Your task to perform on an android device: search for starred emails in the gmail app Image 0: 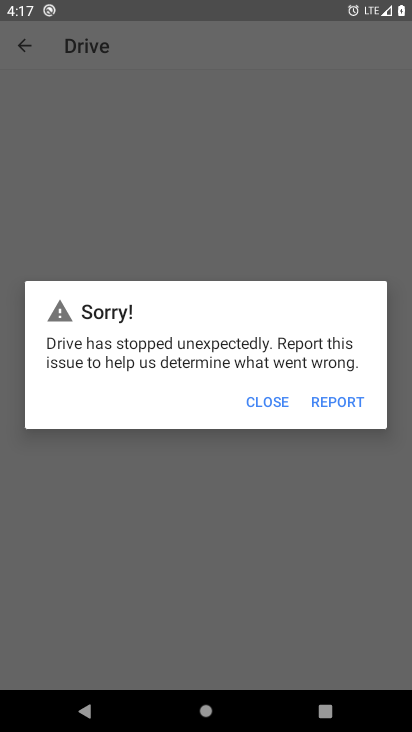
Step 0: press home button
Your task to perform on an android device: search for starred emails in the gmail app Image 1: 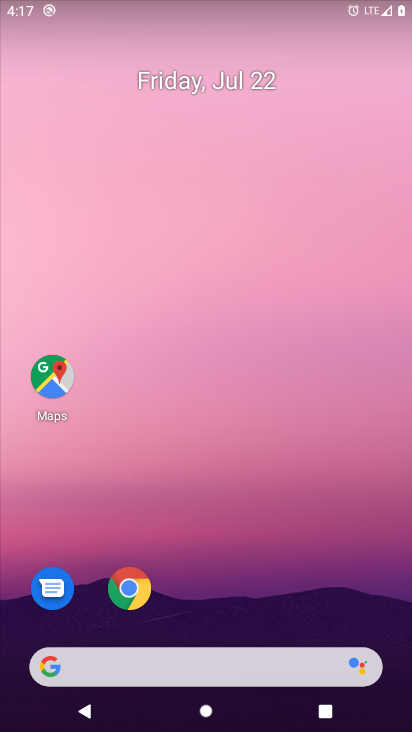
Step 1: drag from (296, 568) to (303, 86)
Your task to perform on an android device: search for starred emails in the gmail app Image 2: 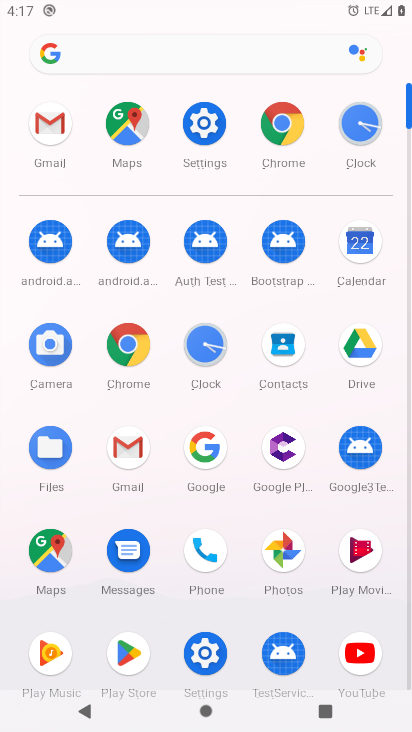
Step 2: click (128, 444)
Your task to perform on an android device: search for starred emails in the gmail app Image 3: 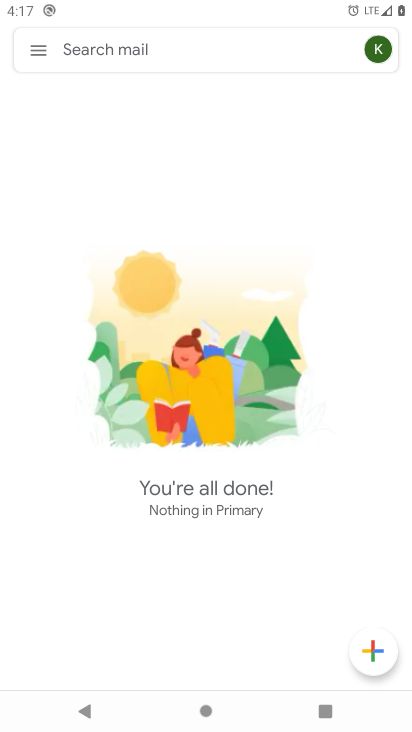
Step 3: click (32, 58)
Your task to perform on an android device: search for starred emails in the gmail app Image 4: 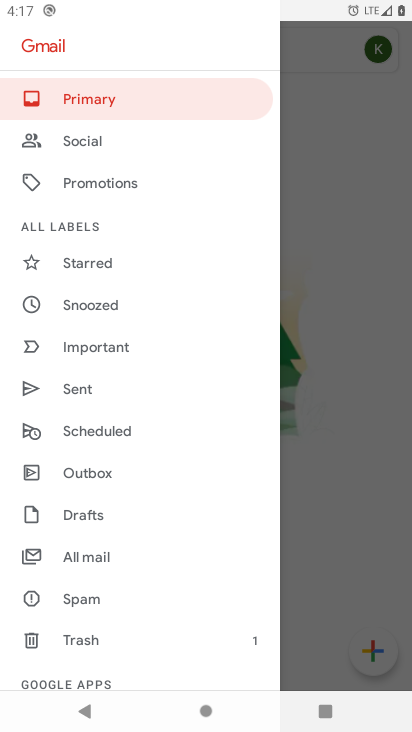
Step 4: click (69, 249)
Your task to perform on an android device: search for starred emails in the gmail app Image 5: 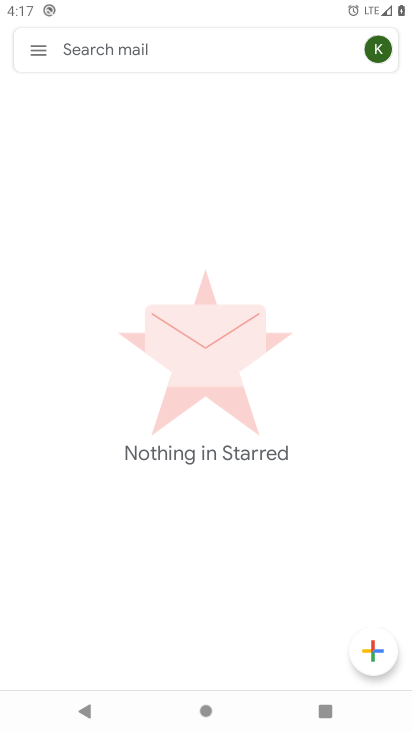
Step 5: task complete